Your task to perform on an android device: Go to accessibility settings Image 0: 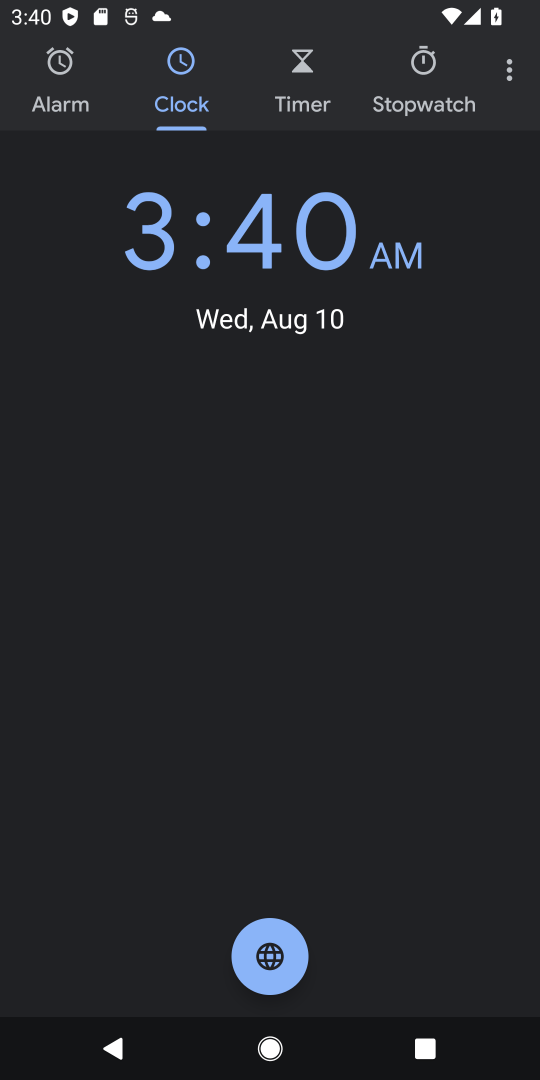
Step 0: press home button
Your task to perform on an android device: Go to accessibility settings Image 1: 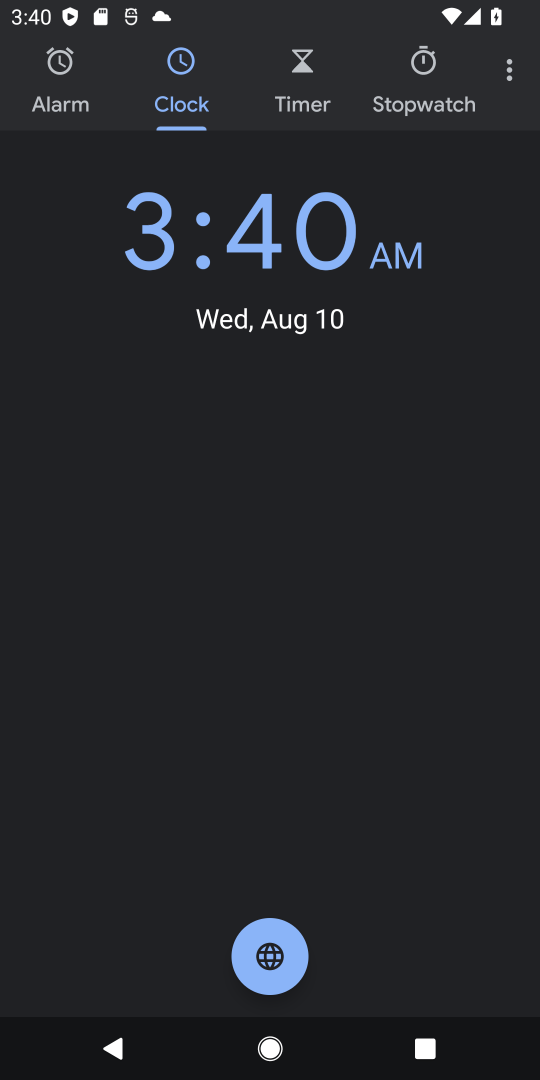
Step 1: press home button
Your task to perform on an android device: Go to accessibility settings Image 2: 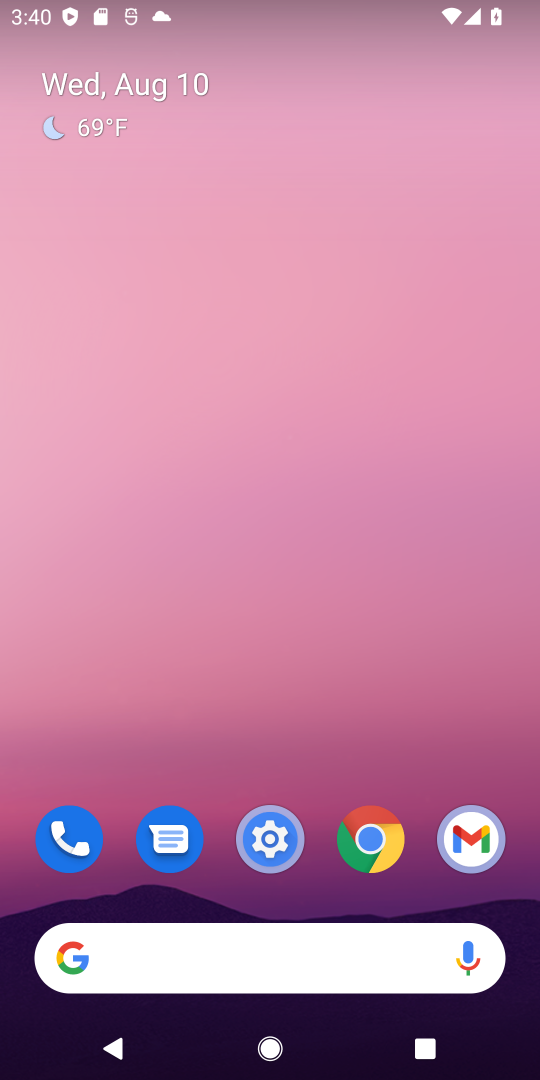
Step 2: click (272, 831)
Your task to perform on an android device: Go to accessibility settings Image 3: 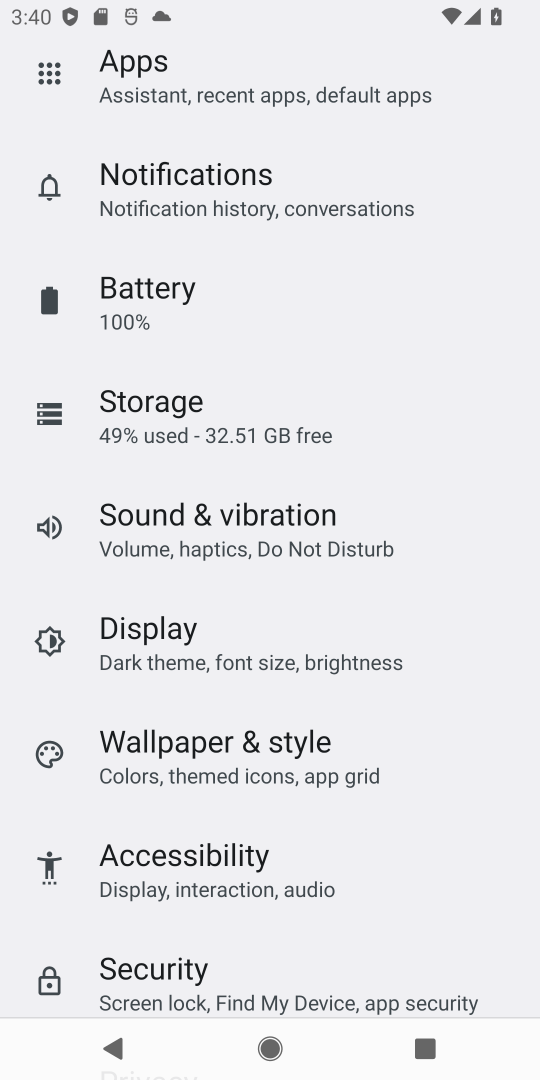
Step 3: click (268, 859)
Your task to perform on an android device: Go to accessibility settings Image 4: 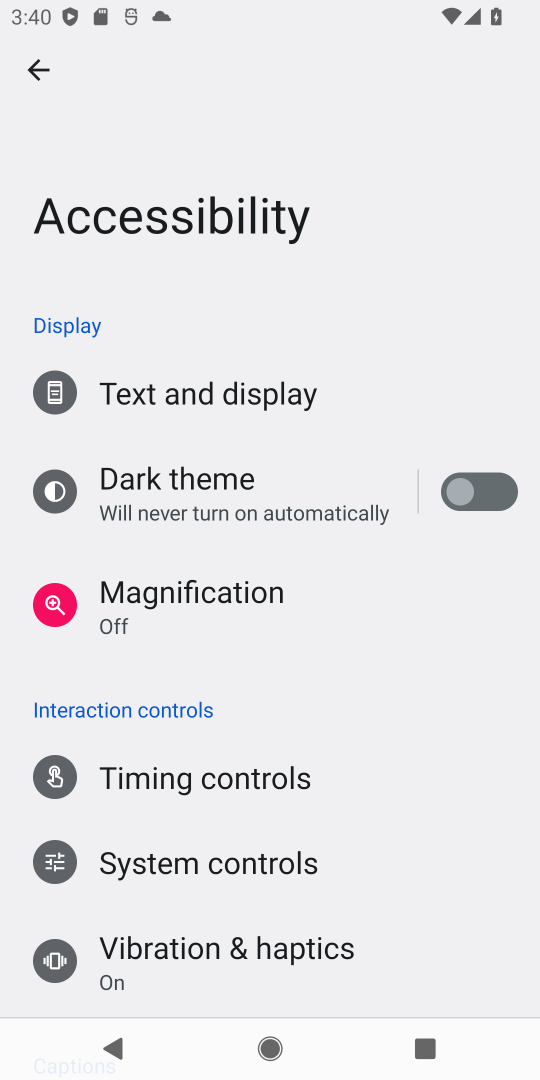
Step 4: task complete